Your task to perform on an android device: set the stopwatch Image 0: 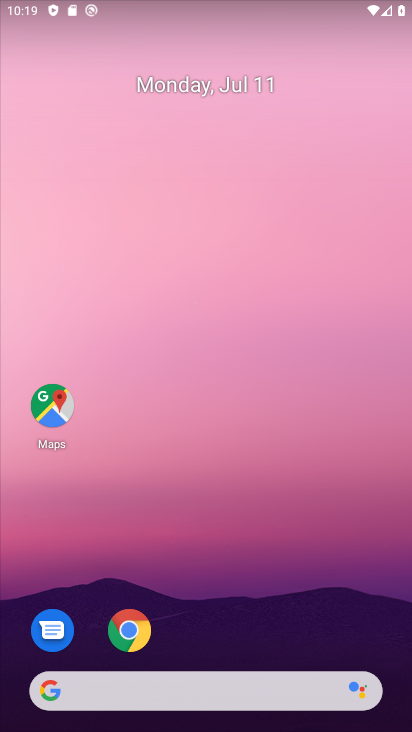
Step 0: drag from (312, 710) to (377, 110)
Your task to perform on an android device: set the stopwatch Image 1: 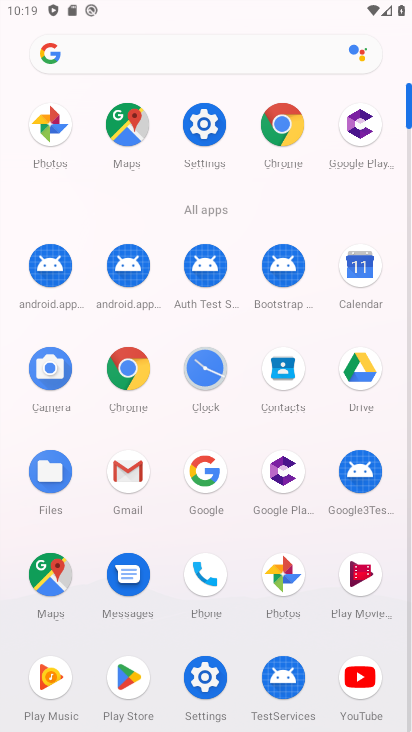
Step 1: click (216, 376)
Your task to perform on an android device: set the stopwatch Image 2: 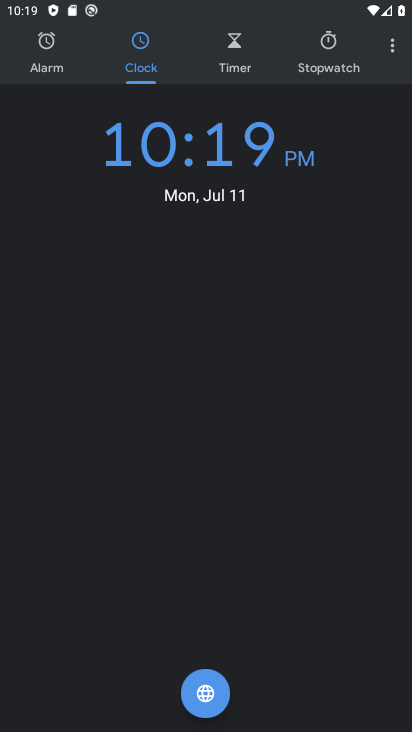
Step 2: click (323, 45)
Your task to perform on an android device: set the stopwatch Image 3: 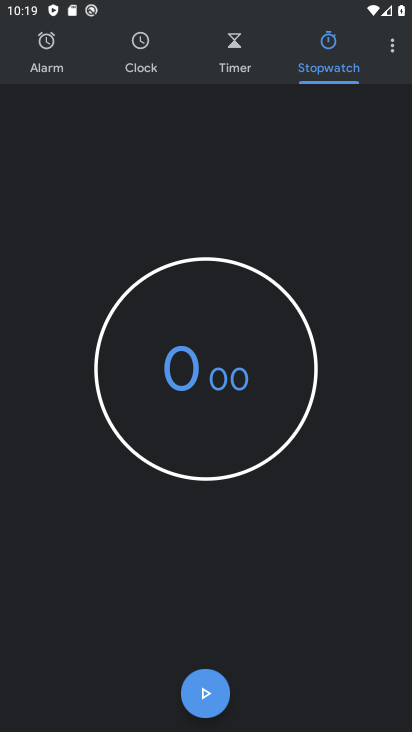
Step 3: click (208, 689)
Your task to perform on an android device: set the stopwatch Image 4: 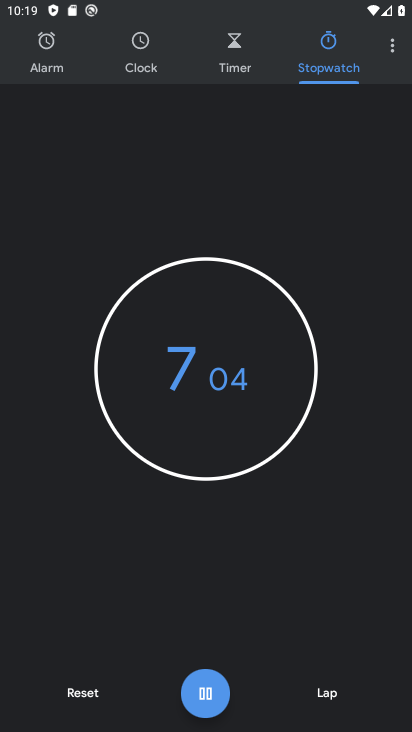
Step 4: task complete